Your task to perform on an android device: Go to Android settings Image 0: 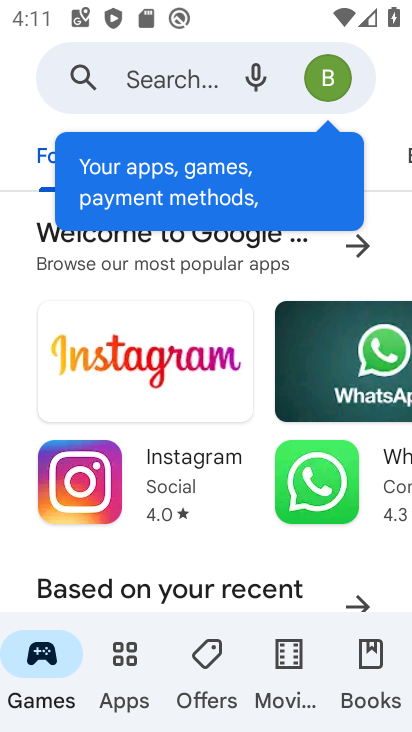
Step 0: press back button
Your task to perform on an android device: Go to Android settings Image 1: 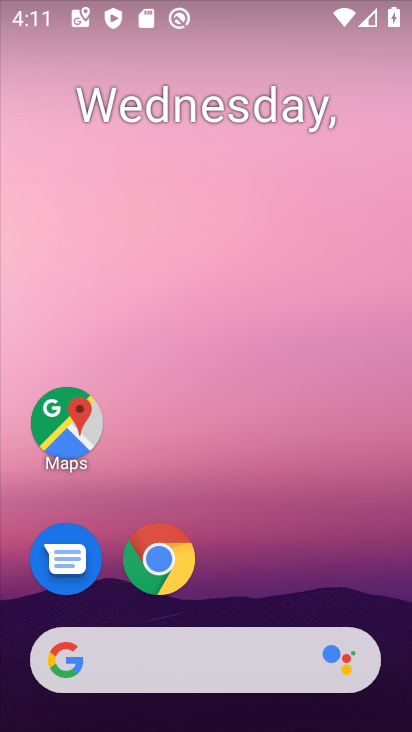
Step 1: drag from (264, 571) to (317, 5)
Your task to perform on an android device: Go to Android settings Image 2: 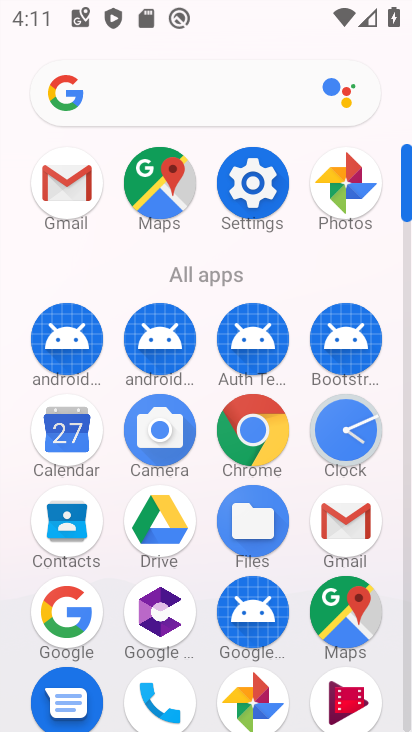
Step 2: click (263, 180)
Your task to perform on an android device: Go to Android settings Image 3: 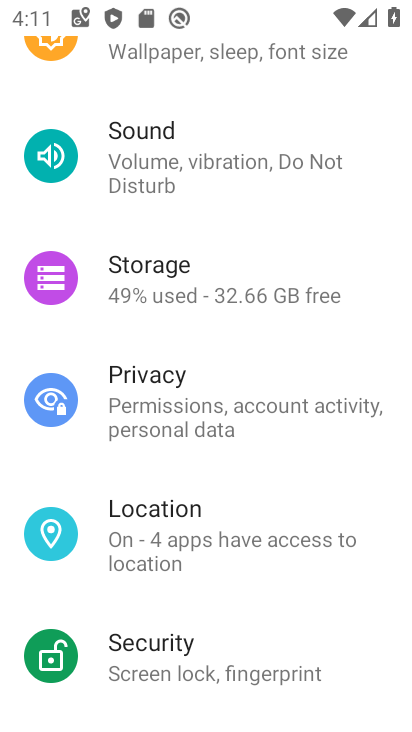
Step 3: drag from (255, 259) to (312, 127)
Your task to perform on an android device: Go to Android settings Image 4: 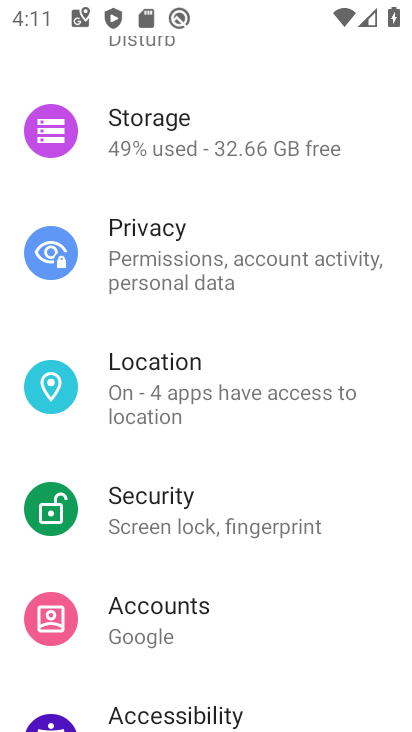
Step 4: drag from (260, 576) to (325, 26)
Your task to perform on an android device: Go to Android settings Image 5: 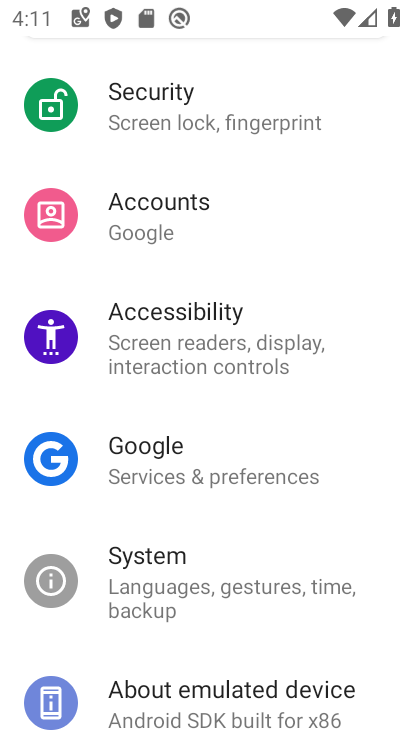
Step 5: drag from (244, 537) to (291, 5)
Your task to perform on an android device: Go to Android settings Image 6: 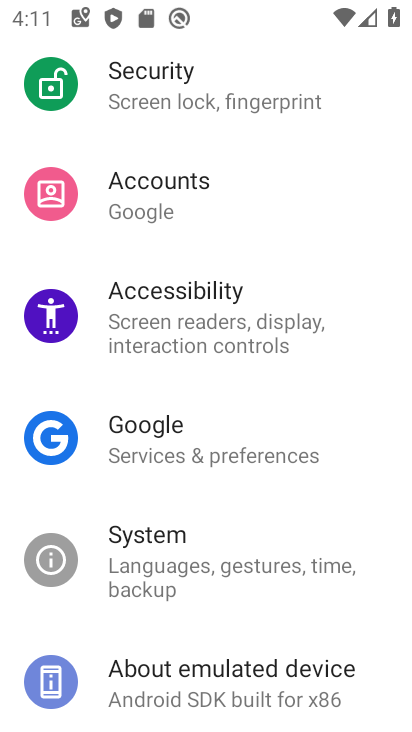
Step 6: click (177, 693)
Your task to perform on an android device: Go to Android settings Image 7: 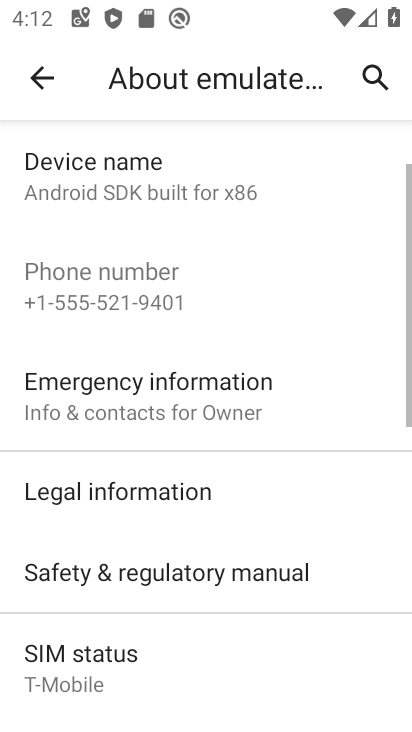
Step 7: task complete